Your task to perform on an android device: Do I have any events today? Image 0: 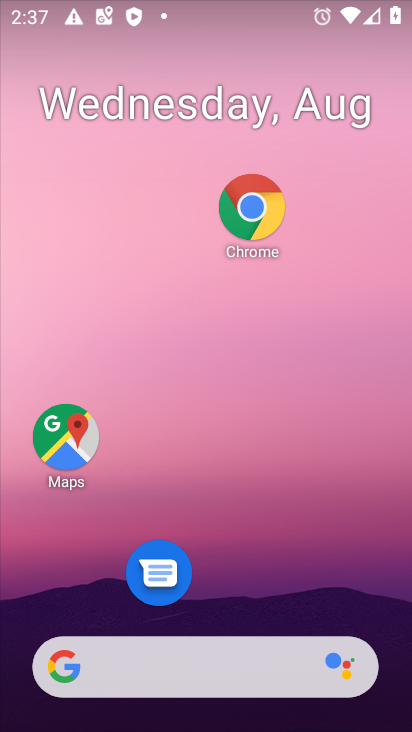
Step 0: drag from (295, 609) to (294, 359)
Your task to perform on an android device: Do I have any events today? Image 1: 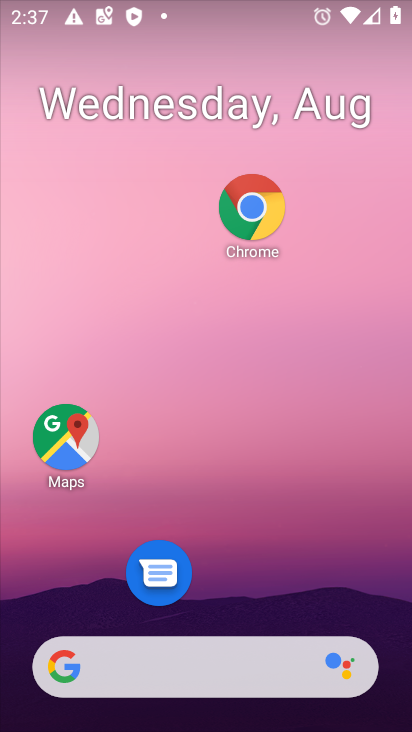
Step 1: drag from (311, 522) to (295, 171)
Your task to perform on an android device: Do I have any events today? Image 2: 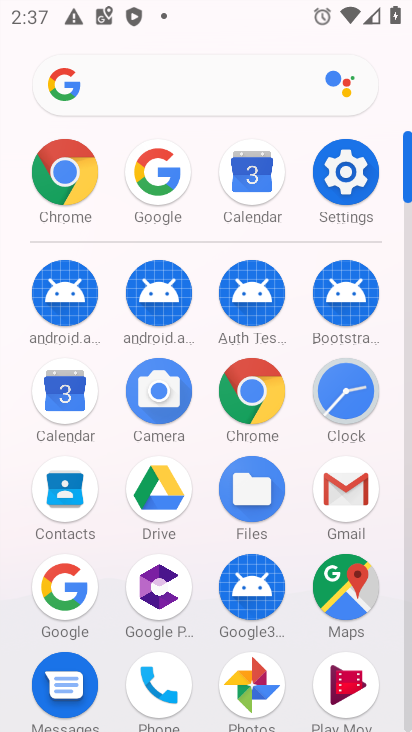
Step 2: click (95, 404)
Your task to perform on an android device: Do I have any events today? Image 3: 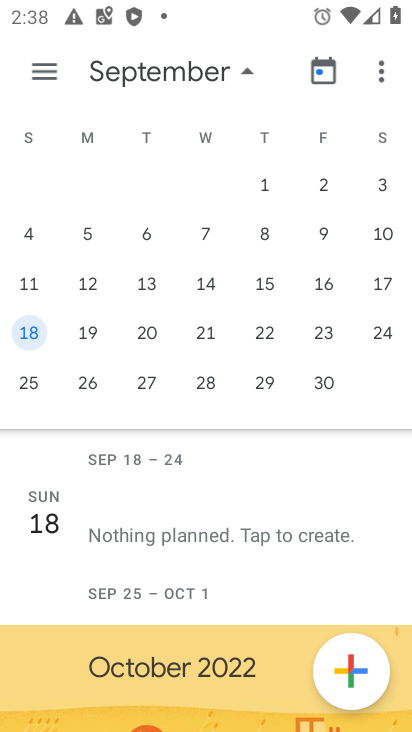
Step 3: drag from (73, 257) to (406, 242)
Your task to perform on an android device: Do I have any events today? Image 4: 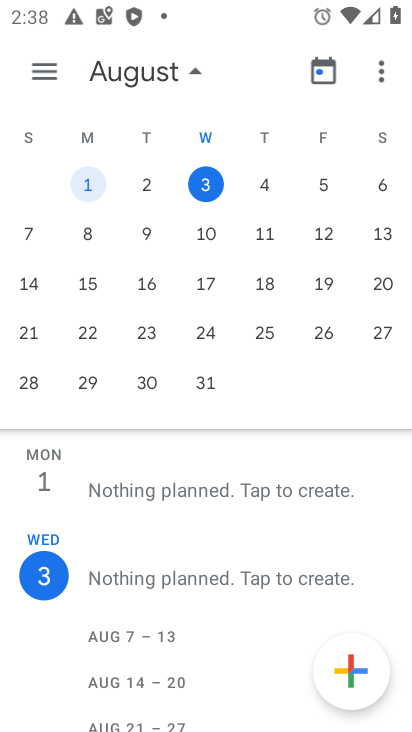
Step 4: click (217, 180)
Your task to perform on an android device: Do I have any events today? Image 5: 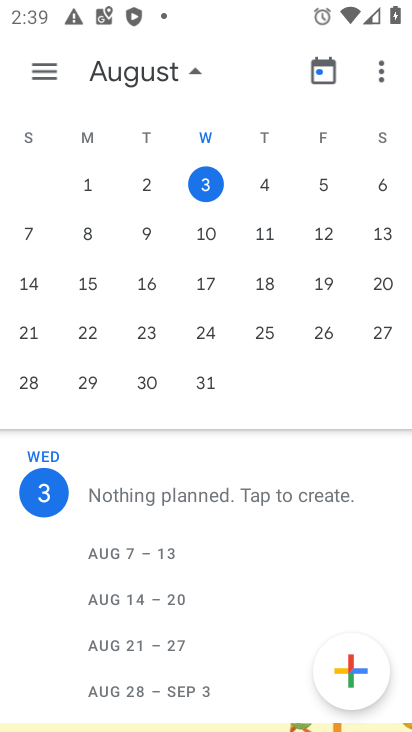
Step 5: task complete